Your task to perform on an android device: add a contact Image 0: 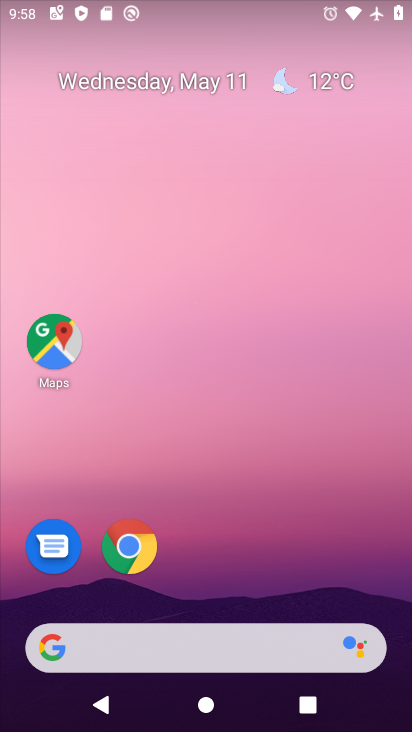
Step 0: drag from (398, 616) to (242, 4)
Your task to perform on an android device: add a contact Image 1: 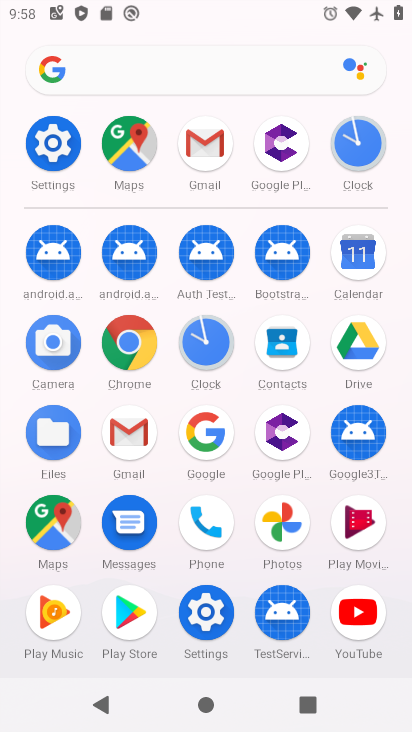
Step 1: click (282, 341)
Your task to perform on an android device: add a contact Image 2: 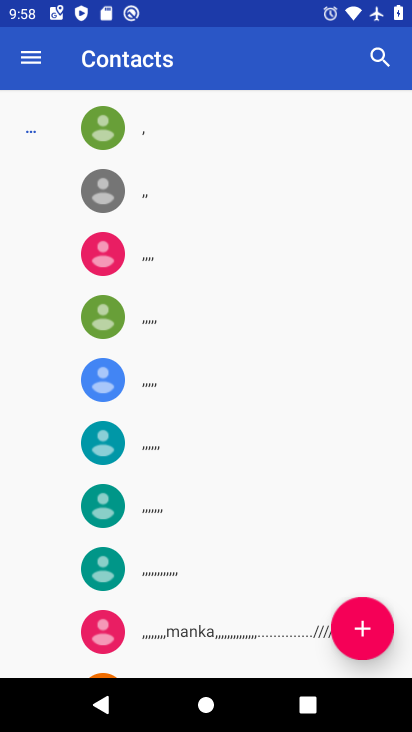
Step 2: click (360, 625)
Your task to perform on an android device: add a contact Image 3: 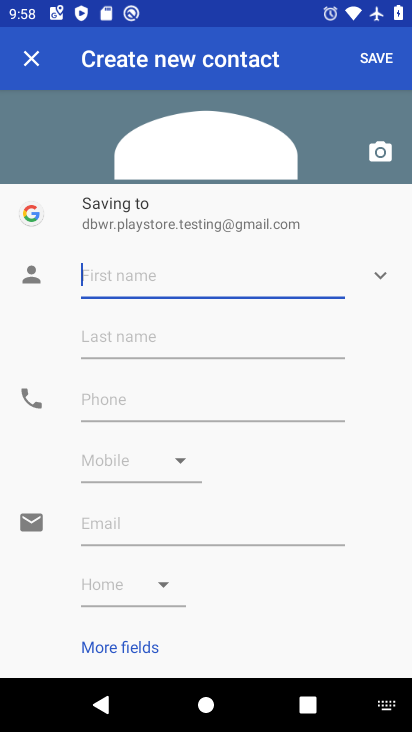
Step 3: type "fghghjjg"
Your task to perform on an android device: add a contact Image 4: 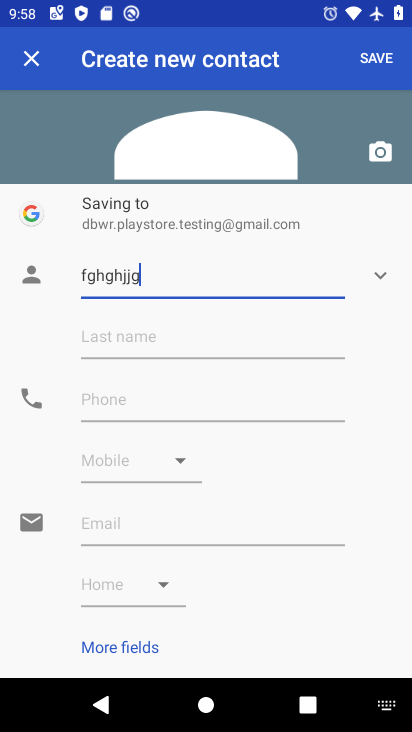
Step 4: click (136, 407)
Your task to perform on an android device: add a contact Image 5: 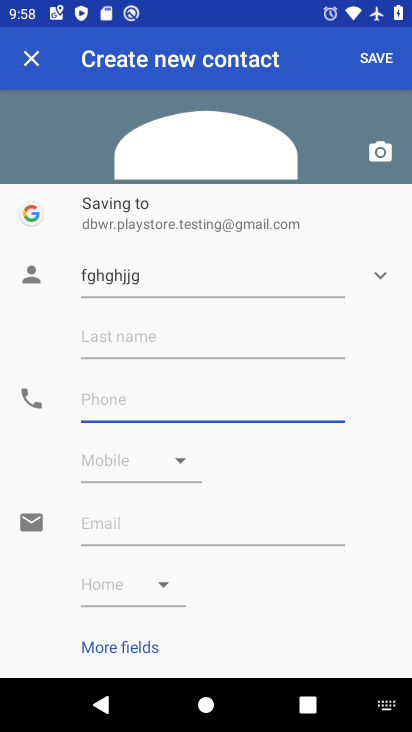
Step 5: type "9788975635"
Your task to perform on an android device: add a contact Image 6: 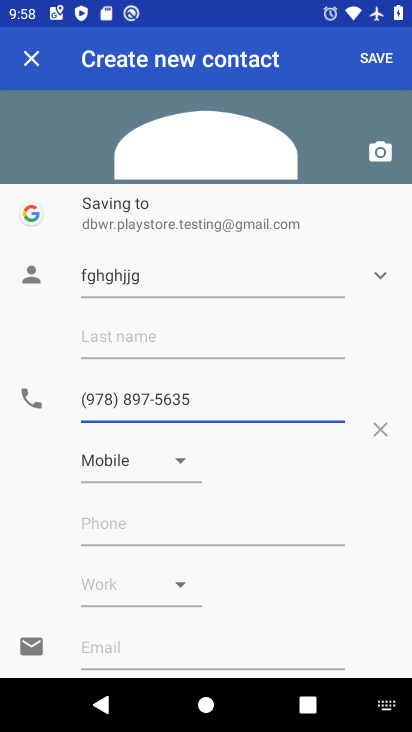
Step 6: click (178, 456)
Your task to perform on an android device: add a contact Image 7: 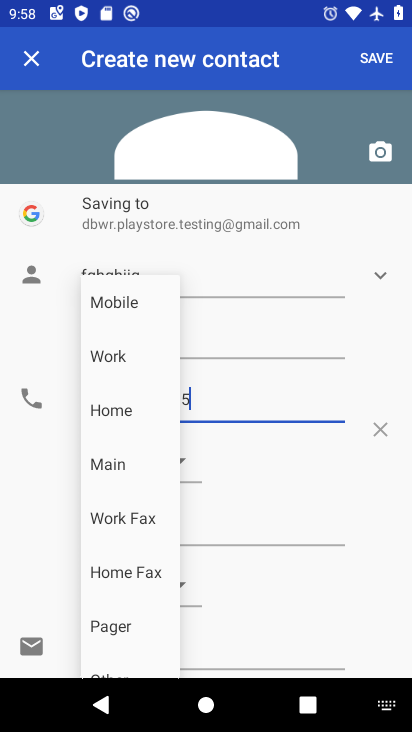
Step 7: click (105, 352)
Your task to perform on an android device: add a contact Image 8: 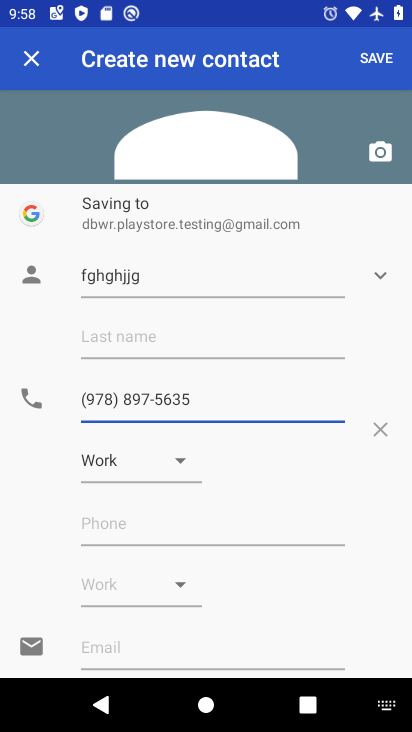
Step 8: click (381, 54)
Your task to perform on an android device: add a contact Image 9: 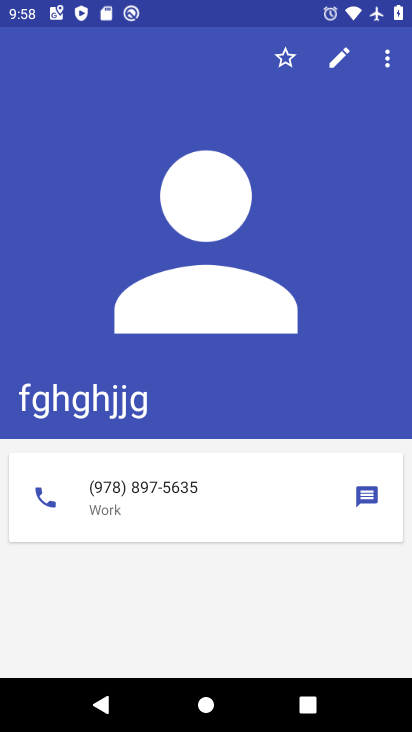
Step 9: task complete